Your task to perform on an android device: open sync settings in chrome Image 0: 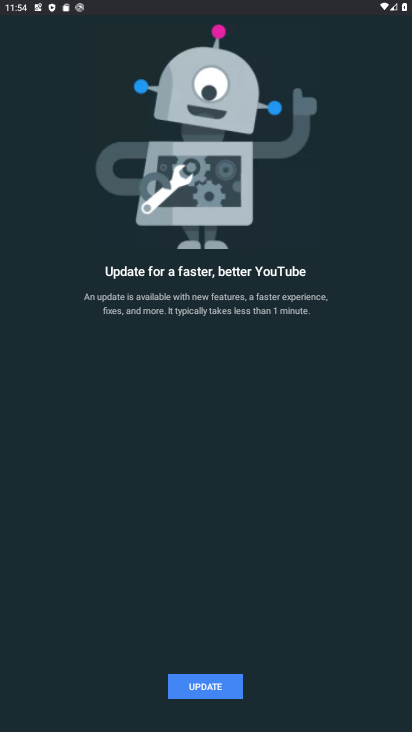
Step 0: press home button
Your task to perform on an android device: open sync settings in chrome Image 1: 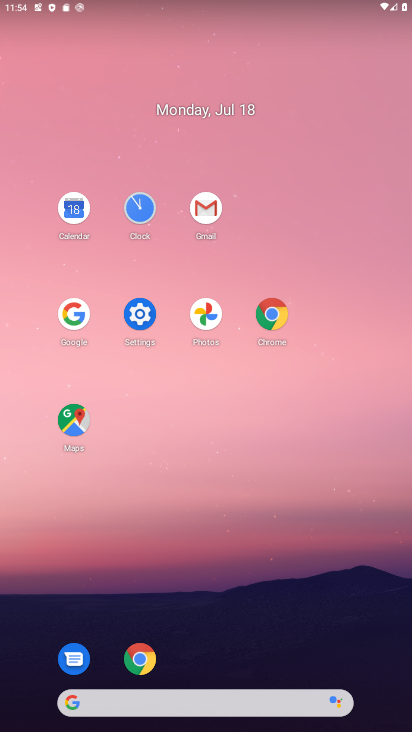
Step 1: click (269, 317)
Your task to perform on an android device: open sync settings in chrome Image 2: 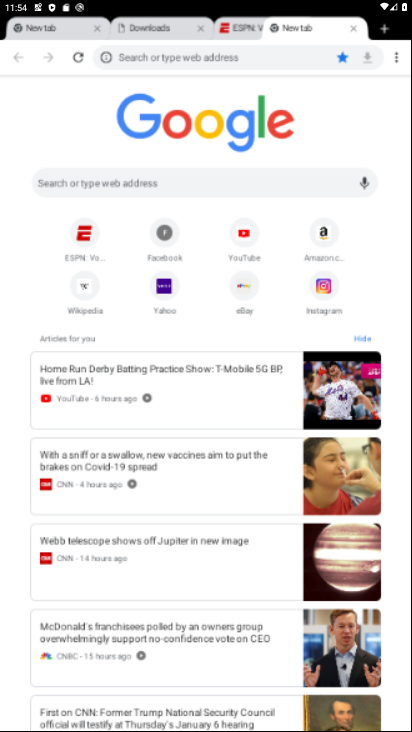
Step 2: click (397, 56)
Your task to perform on an android device: open sync settings in chrome Image 3: 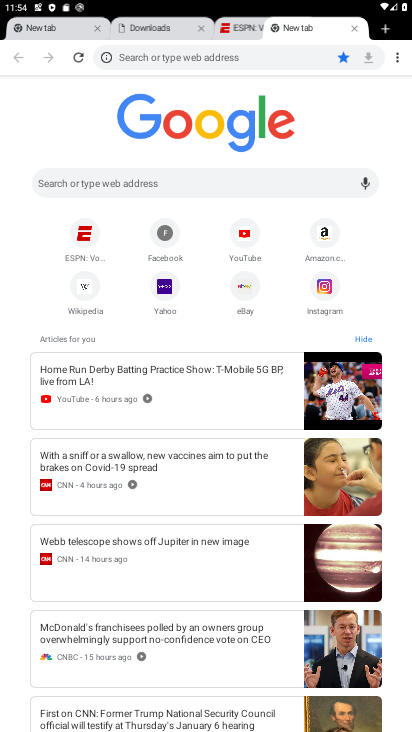
Step 3: click (403, 62)
Your task to perform on an android device: open sync settings in chrome Image 4: 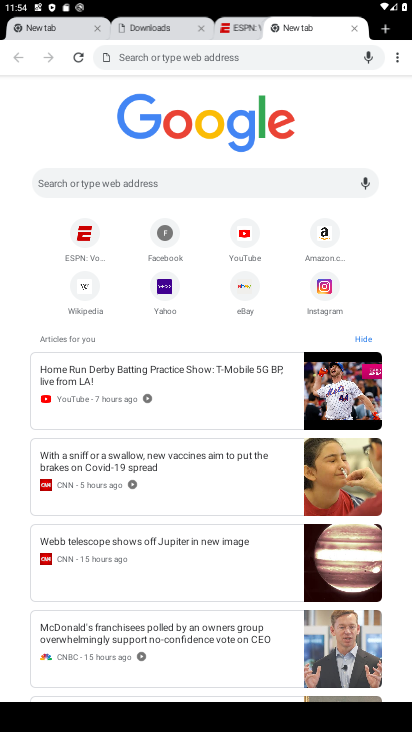
Step 4: click (394, 56)
Your task to perform on an android device: open sync settings in chrome Image 5: 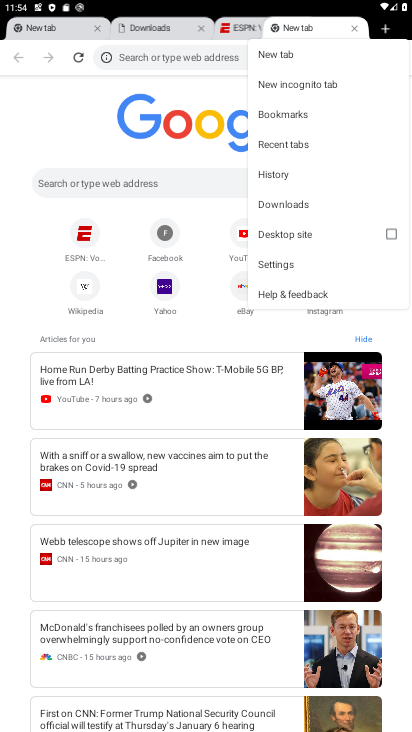
Step 5: click (282, 258)
Your task to perform on an android device: open sync settings in chrome Image 6: 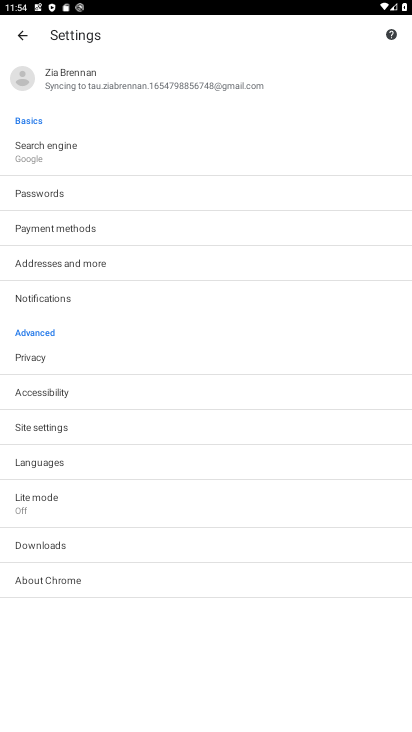
Step 6: click (133, 429)
Your task to perform on an android device: open sync settings in chrome Image 7: 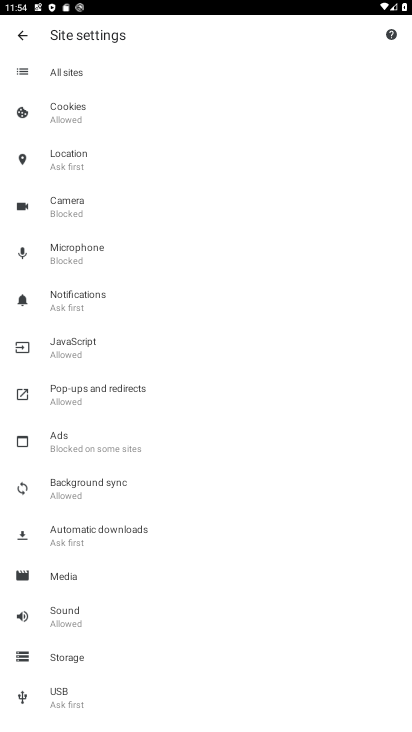
Step 7: click (106, 499)
Your task to perform on an android device: open sync settings in chrome Image 8: 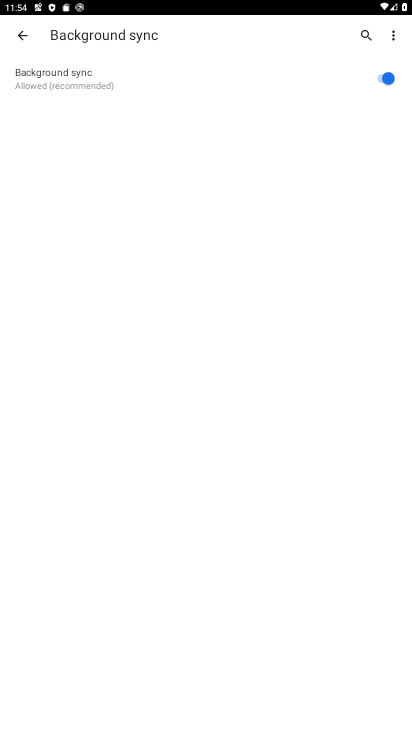
Step 8: task complete